Your task to perform on an android device: Open Amazon Image 0: 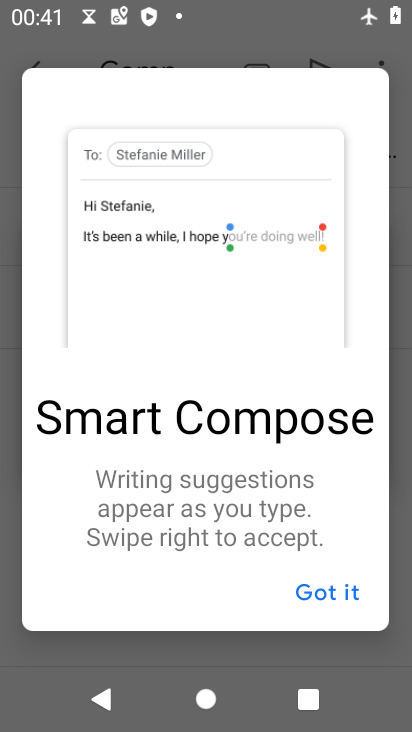
Step 0: press home button
Your task to perform on an android device: Open Amazon Image 1: 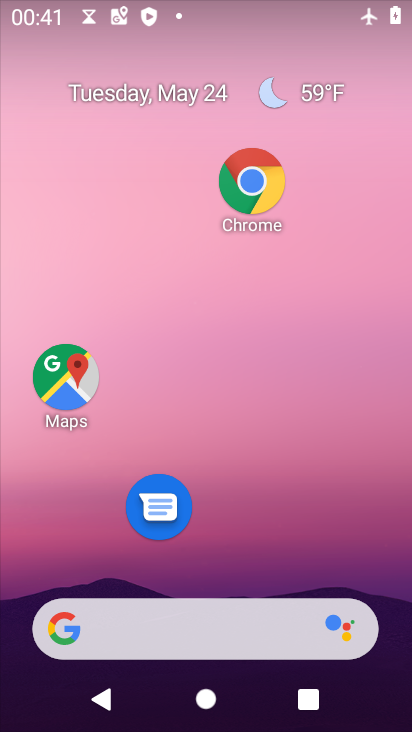
Step 1: click (234, 165)
Your task to perform on an android device: Open Amazon Image 2: 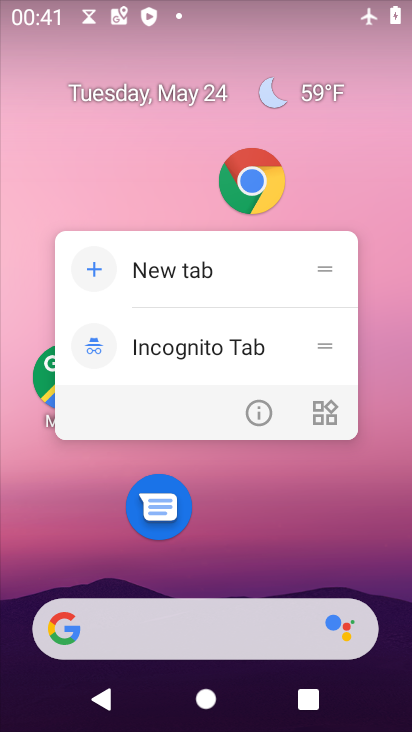
Step 2: click (254, 170)
Your task to perform on an android device: Open Amazon Image 3: 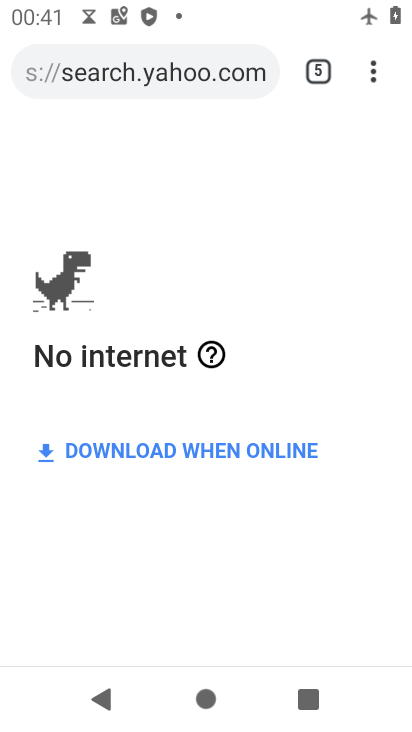
Step 3: click (379, 57)
Your task to perform on an android device: Open Amazon Image 4: 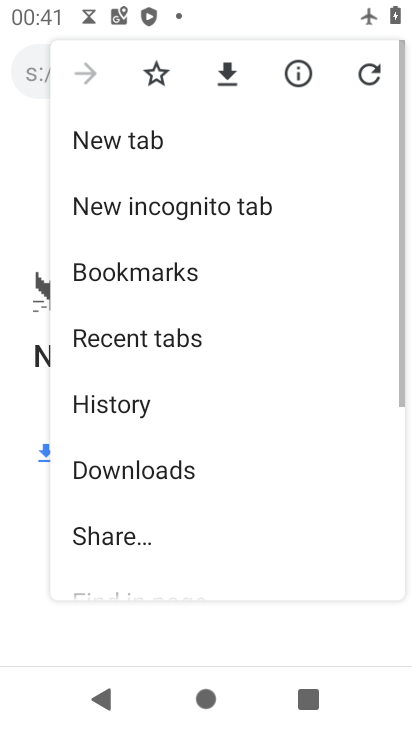
Step 4: click (158, 144)
Your task to perform on an android device: Open Amazon Image 5: 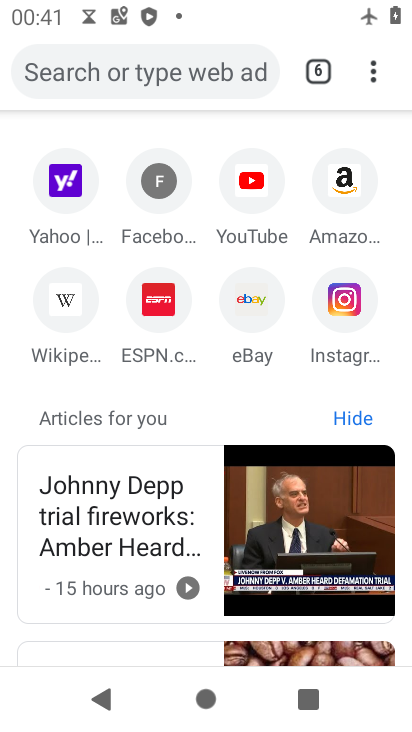
Step 5: click (334, 174)
Your task to perform on an android device: Open Amazon Image 6: 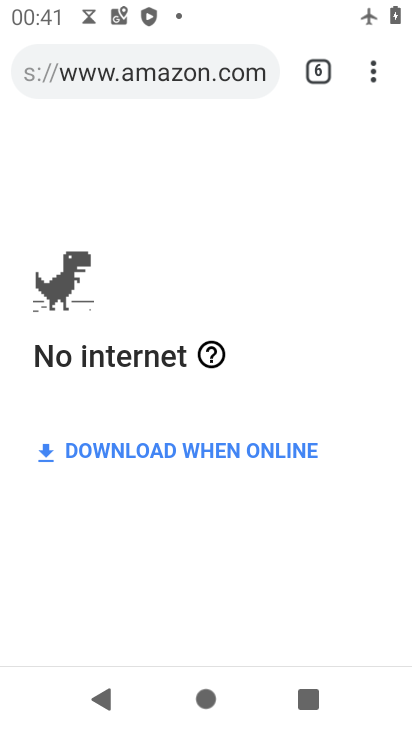
Step 6: task complete